Your task to perform on an android device: What's the weather going to be this weekend? Image 0: 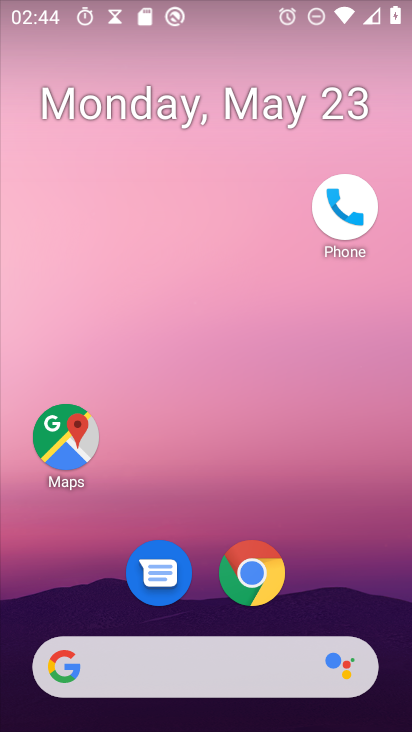
Step 0: press home button
Your task to perform on an android device: What's the weather going to be this weekend? Image 1: 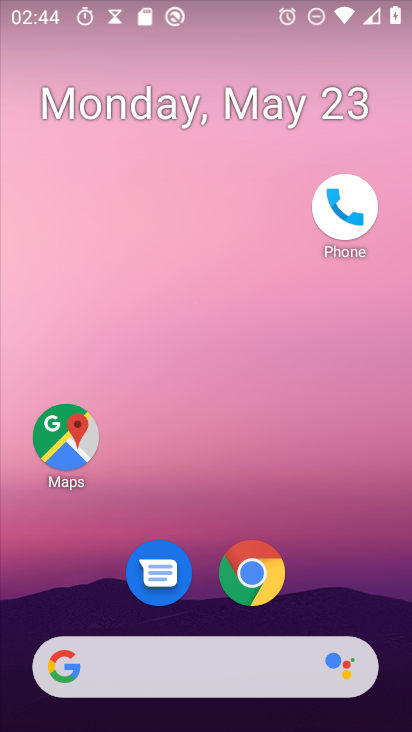
Step 1: click (70, 669)
Your task to perform on an android device: What's the weather going to be this weekend? Image 2: 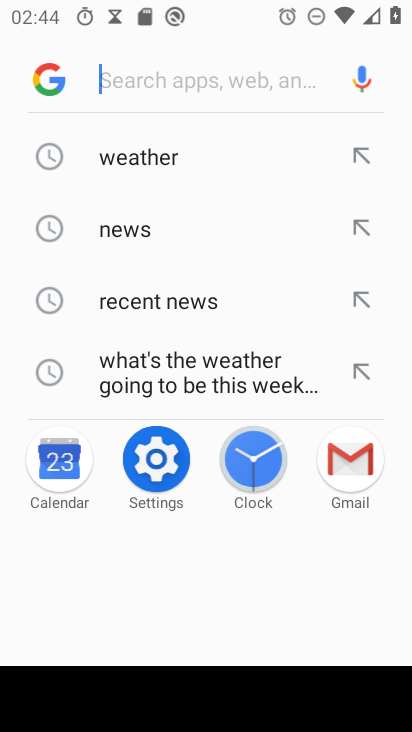
Step 2: click (140, 156)
Your task to perform on an android device: What's the weather going to be this weekend? Image 3: 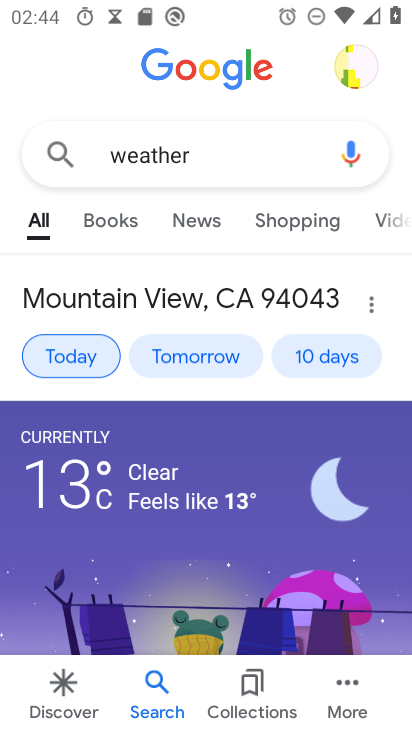
Step 3: click (315, 353)
Your task to perform on an android device: What's the weather going to be this weekend? Image 4: 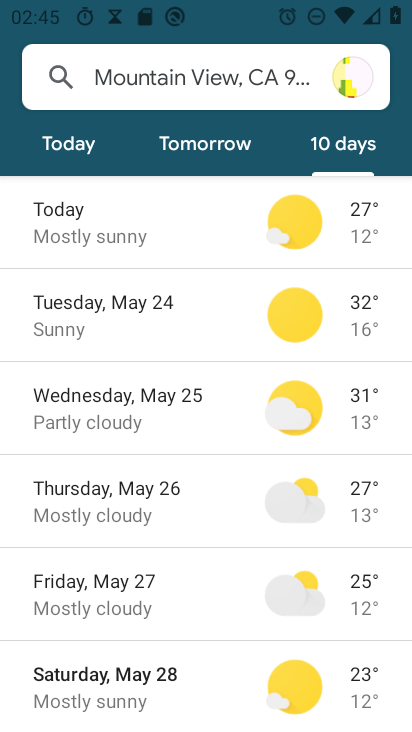
Step 4: task complete